Your task to perform on an android device: Open maps Image 0: 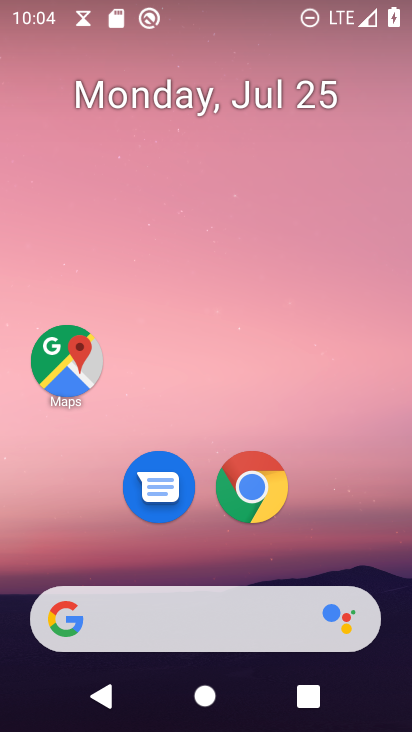
Step 0: click (66, 359)
Your task to perform on an android device: Open maps Image 1: 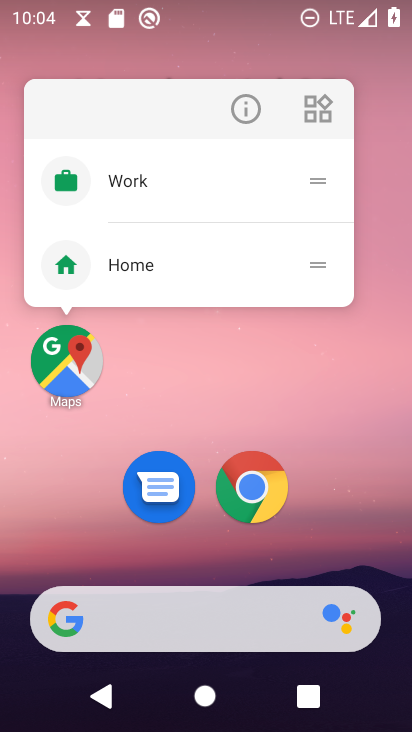
Step 1: click (52, 345)
Your task to perform on an android device: Open maps Image 2: 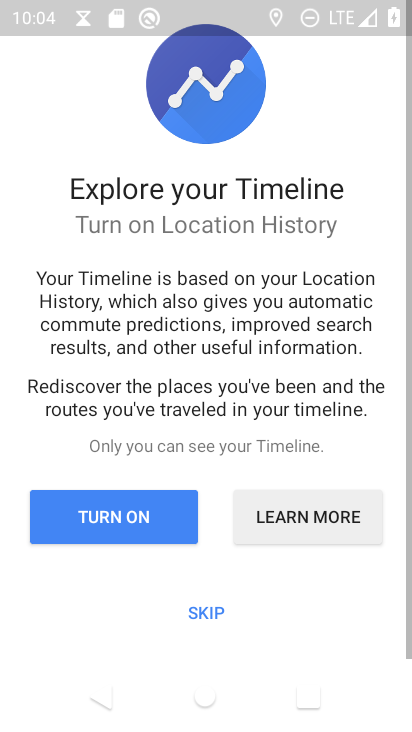
Step 2: click (199, 613)
Your task to perform on an android device: Open maps Image 3: 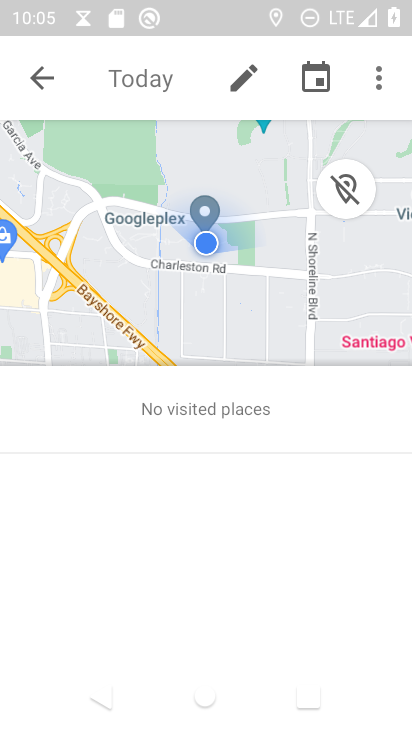
Step 3: task complete